Your task to perform on an android device: Toggle the flashlight Image 0: 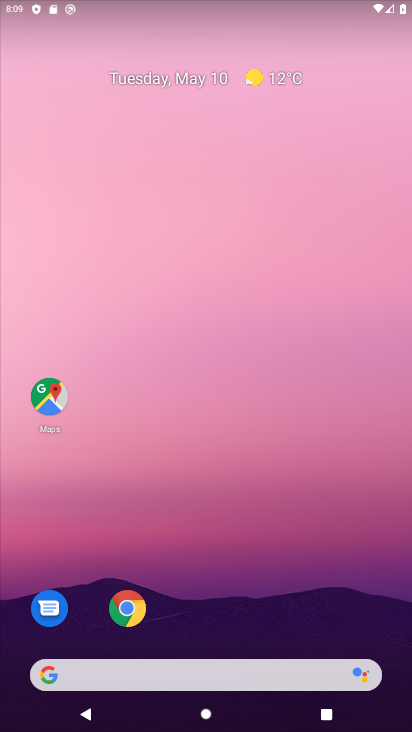
Step 0: drag from (191, 11) to (210, 613)
Your task to perform on an android device: Toggle the flashlight Image 1: 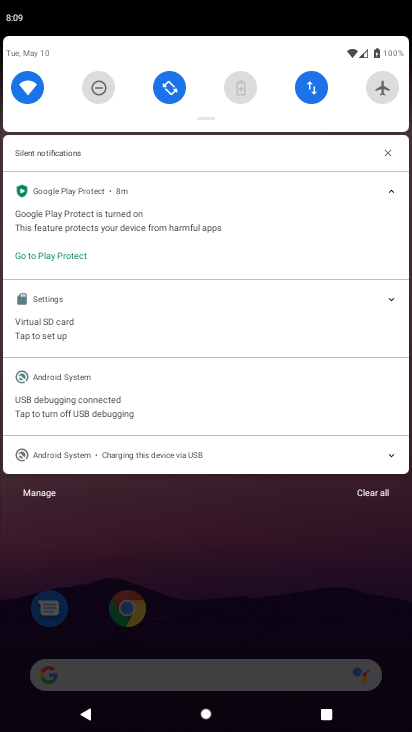
Step 1: task complete